Your task to perform on an android device: Check the new Jordans on Nike. Image 0: 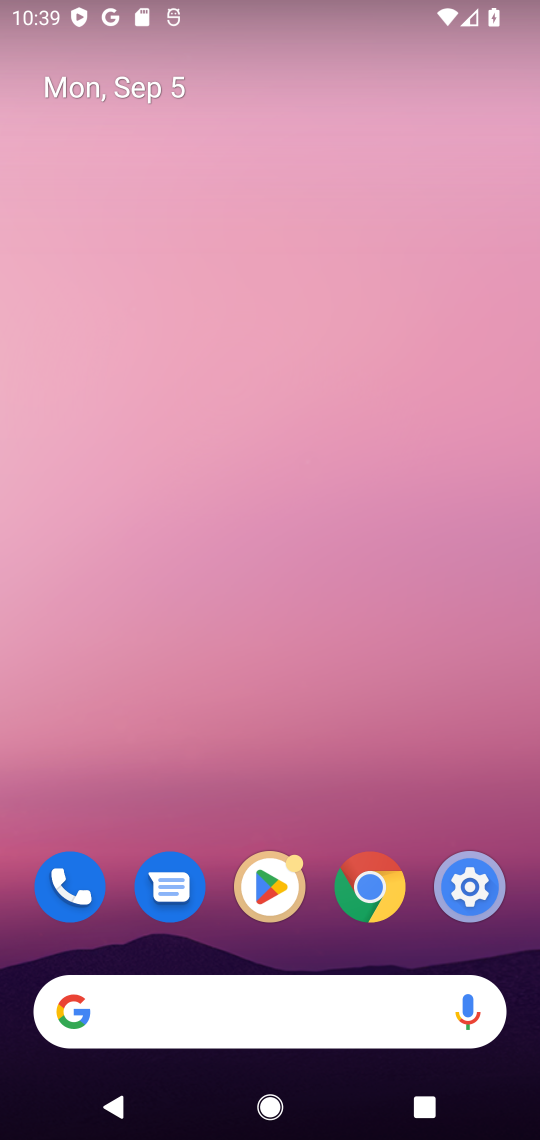
Step 0: click (367, 895)
Your task to perform on an android device: Check the new Jordans on Nike. Image 1: 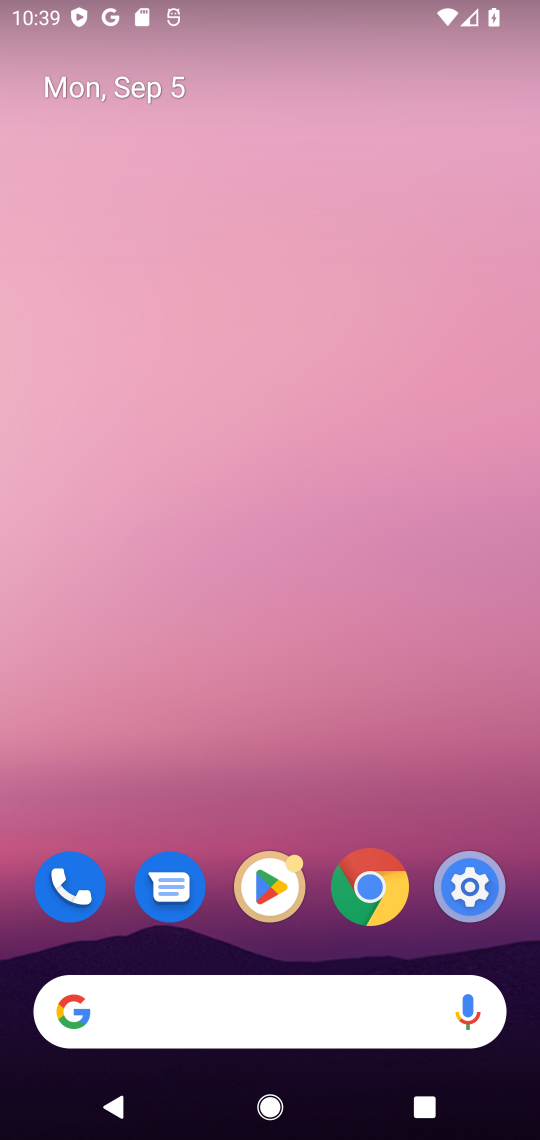
Step 1: click (352, 909)
Your task to perform on an android device: Check the new Jordans on Nike. Image 2: 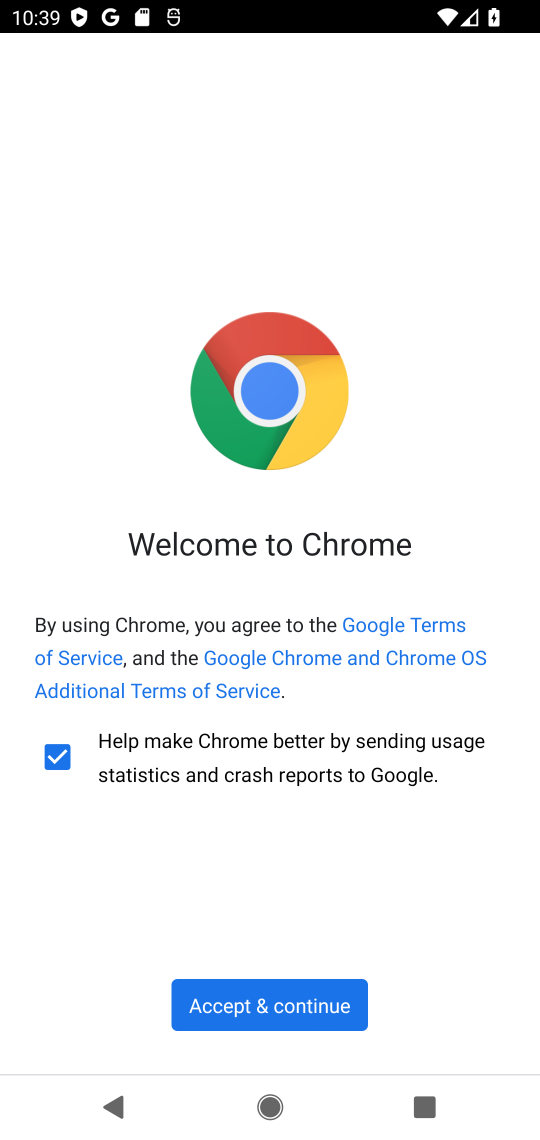
Step 2: click (324, 1012)
Your task to perform on an android device: Check the new Jordans on Nike. Image 3: 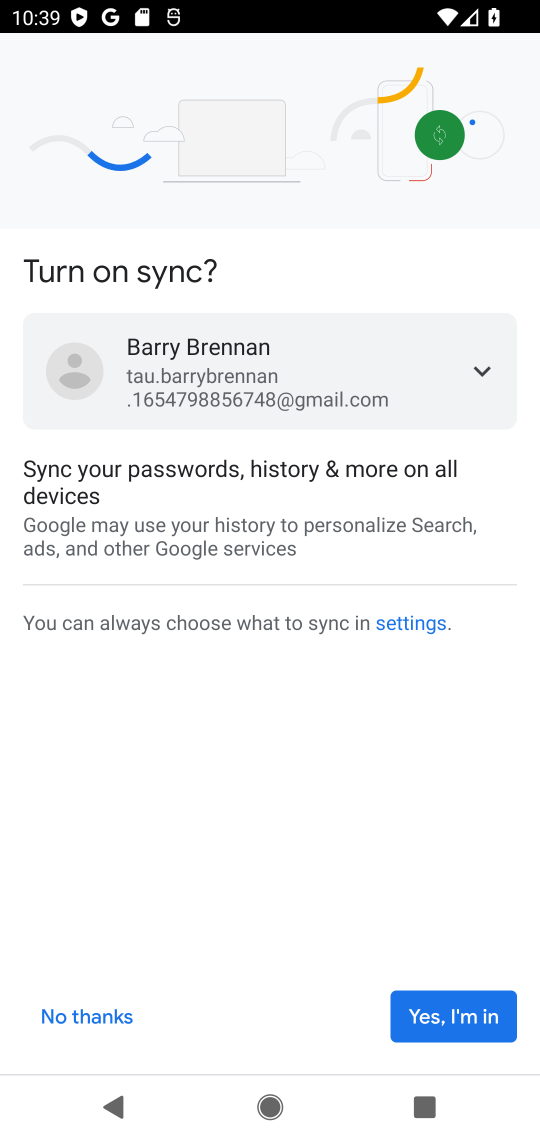
Step 3: click (435, 1008)
Your task to perform on an android device: Check the new Jordans on Nike. Image 4: 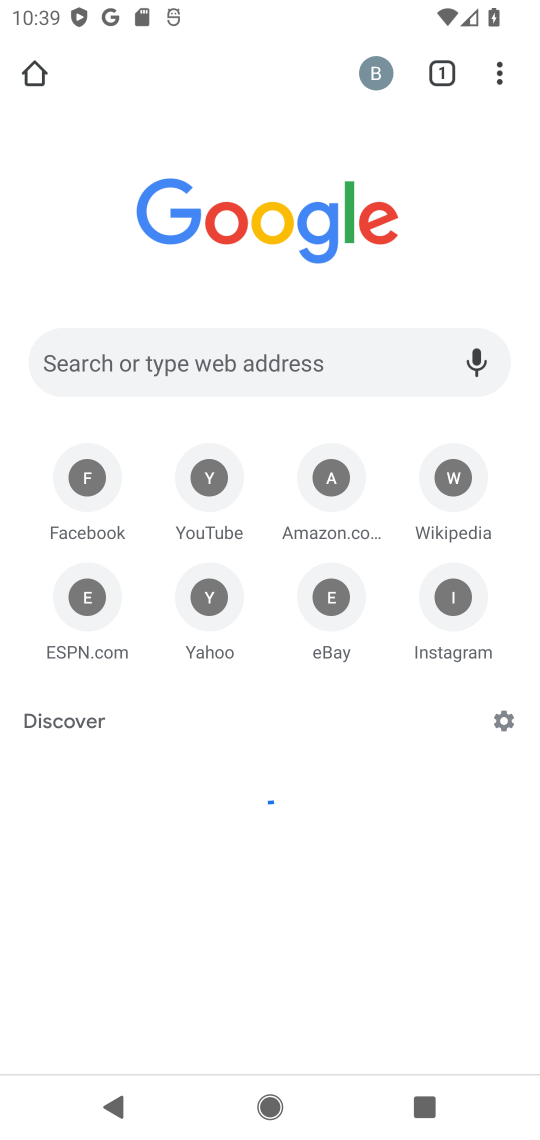
Step 4: click (213, 311)
Your task to perform on an android device: Check the new Jordans on Nike. Image 5: 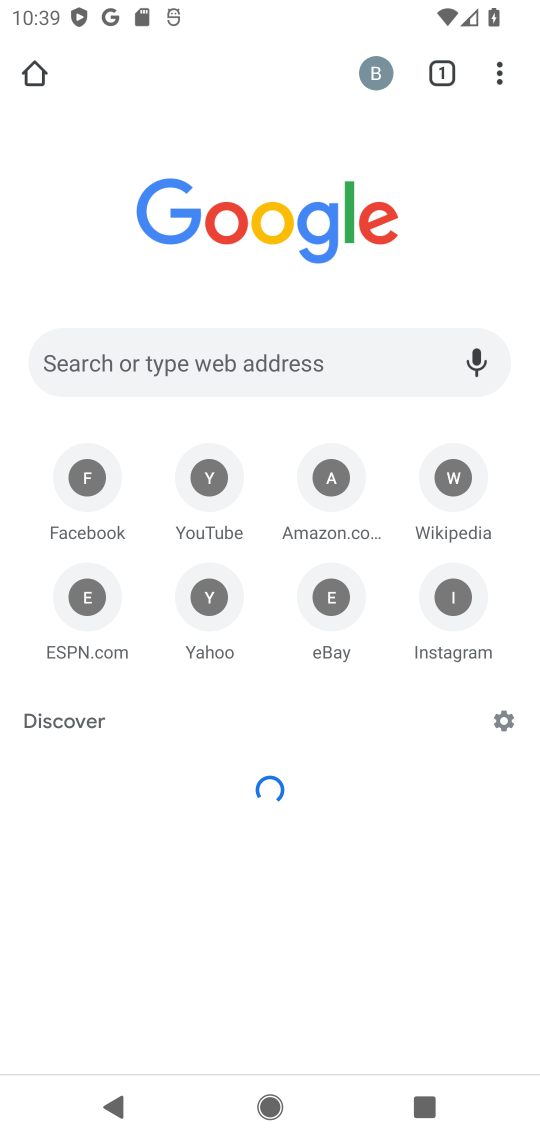
Step 5: click (213, 332)
Your task to perform on an android device: Check the new Jordans on Nike. Image 6: 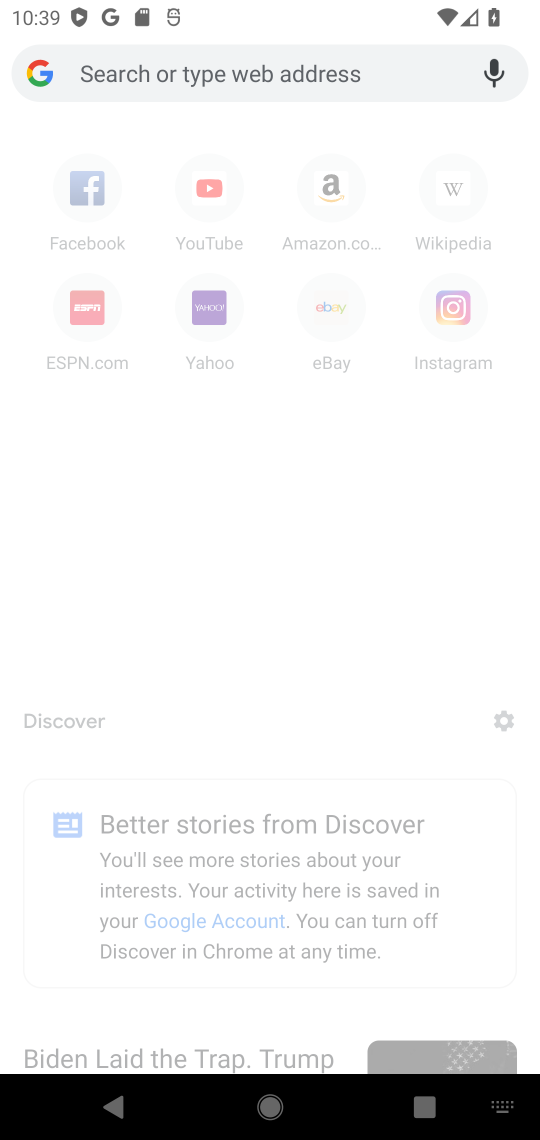
Step 6: type "nike"
Your task to perform on an android device: Check the new Jordans on Nike. Image 7: 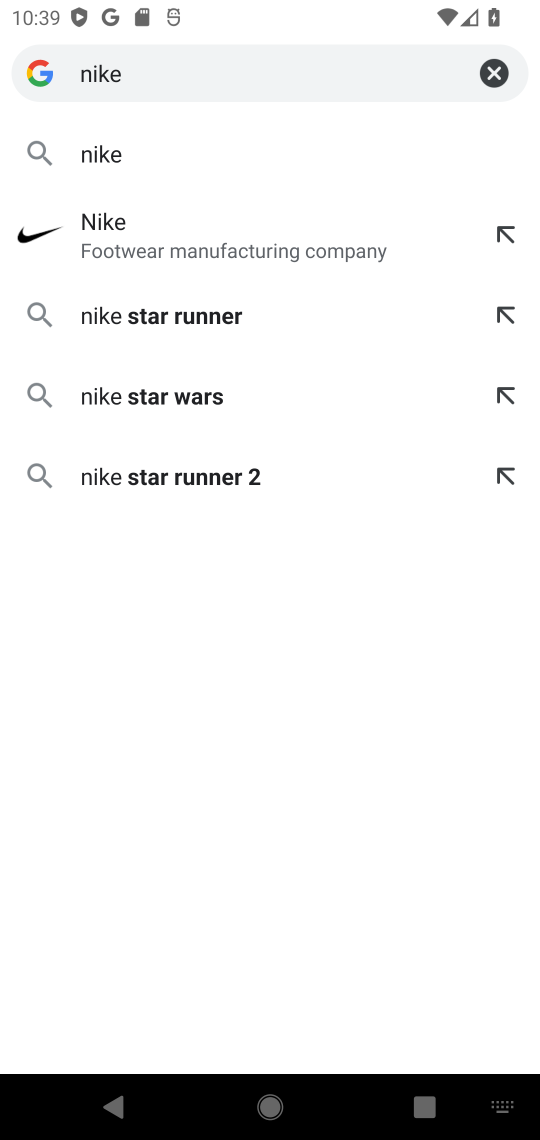
Step 7: press enter
Your task to perform on an android device: Check the new Jordans on Nike. Image 8: 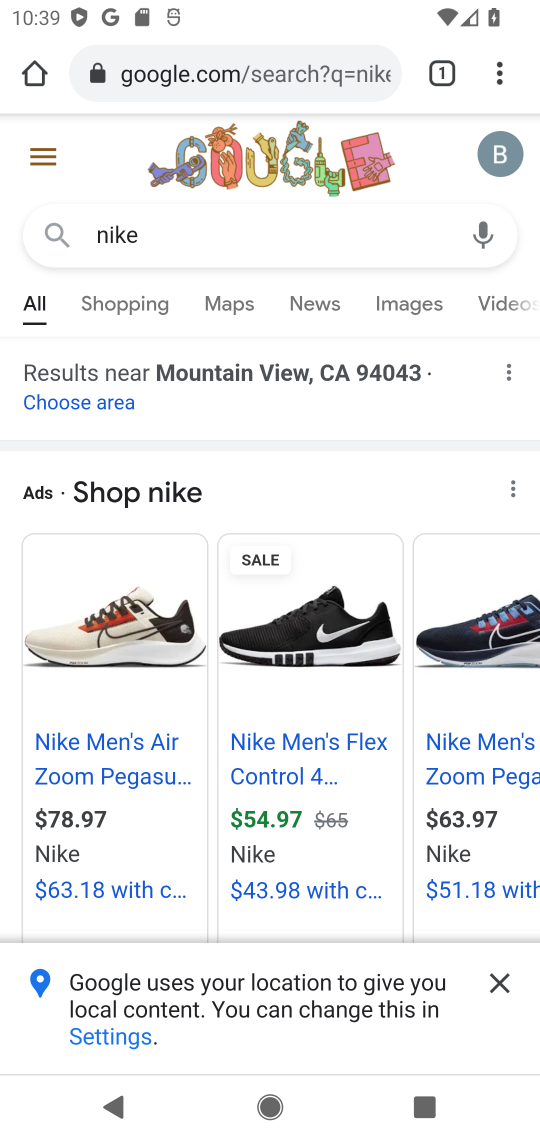
Step 8: drag from (145, 712) to (128, 353)
Your task to perform on an android device: Check the new Jordans on Nike. Image 9: 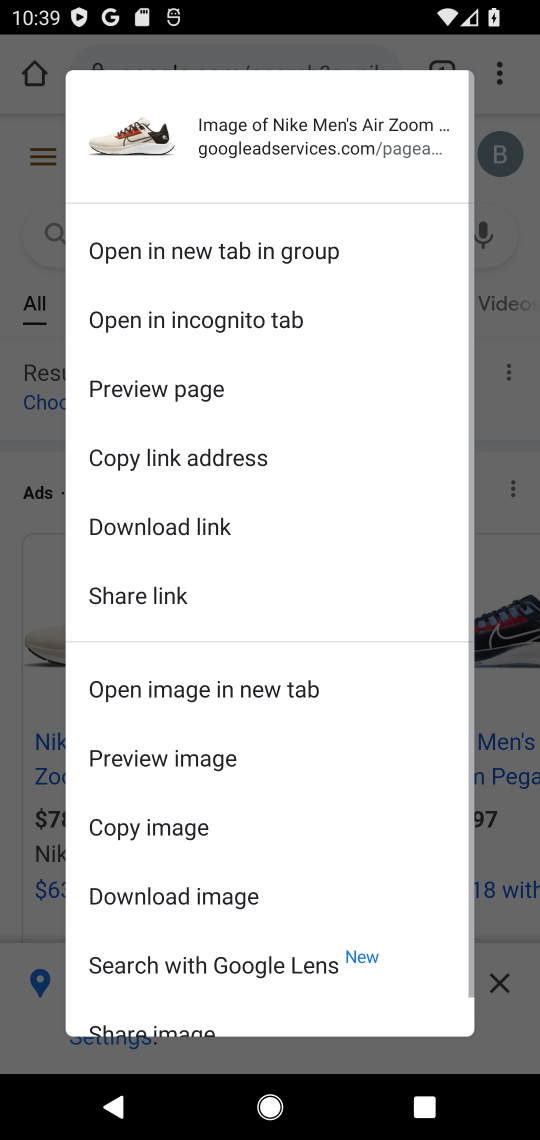
Step 9: click (511, 844)
Your task to perform on an android device: Check the new Jordans on Nike. Image 10: 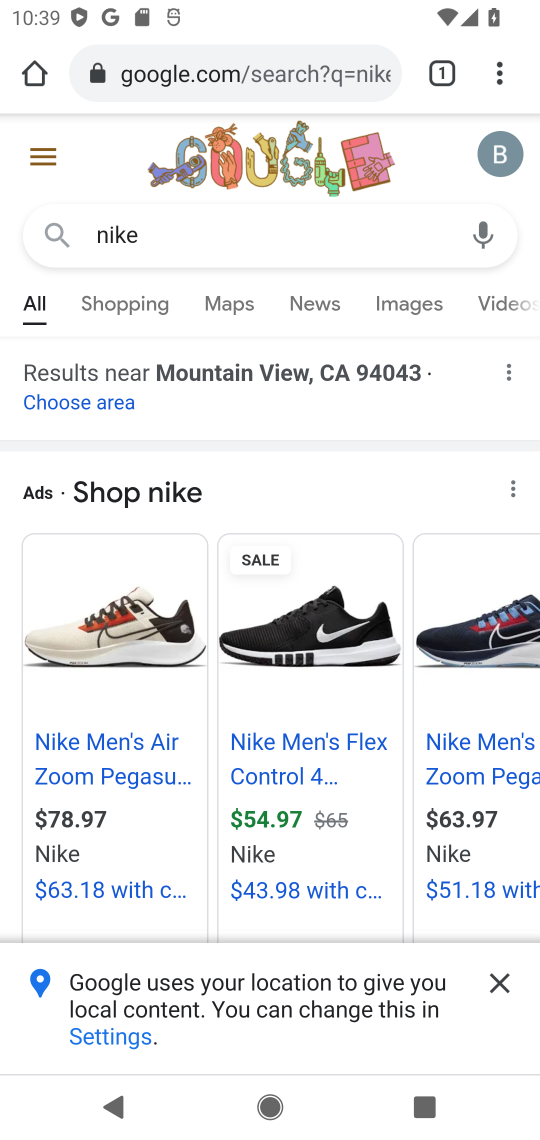
Step 10: click (503, 987)
Your task to perform on an android device: Check the new Jordans on Nike. Image 11: 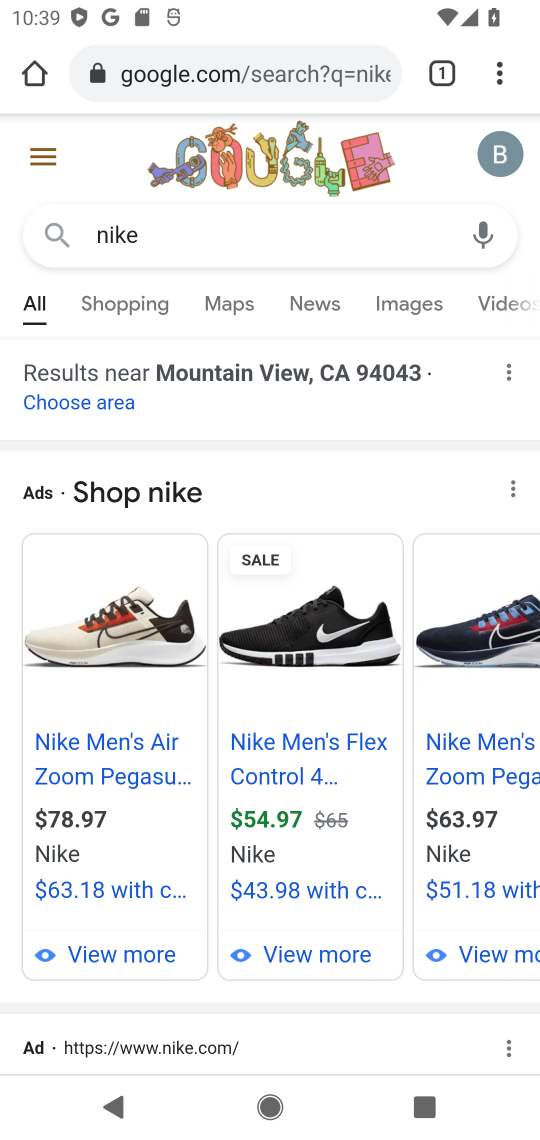
Step 11: drag from (321, 974) to (356, 493)
Your task to perform on an android device: Check the new Jordans on Nike. Image 12: 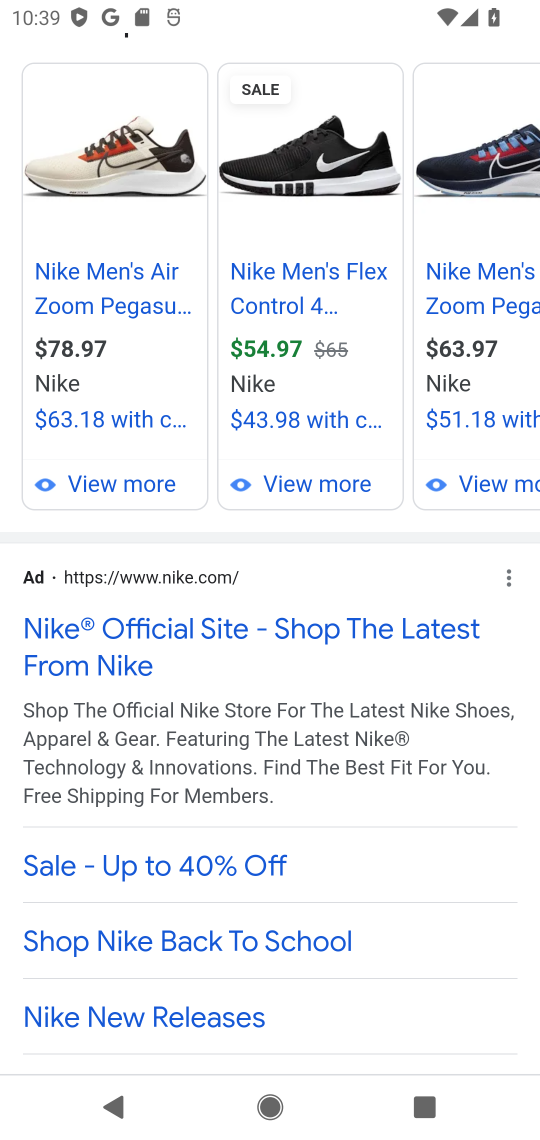
Step 12: click (60, 642)
Your task to perform on an android device: Check the new Jordans on Nike. Image 13: 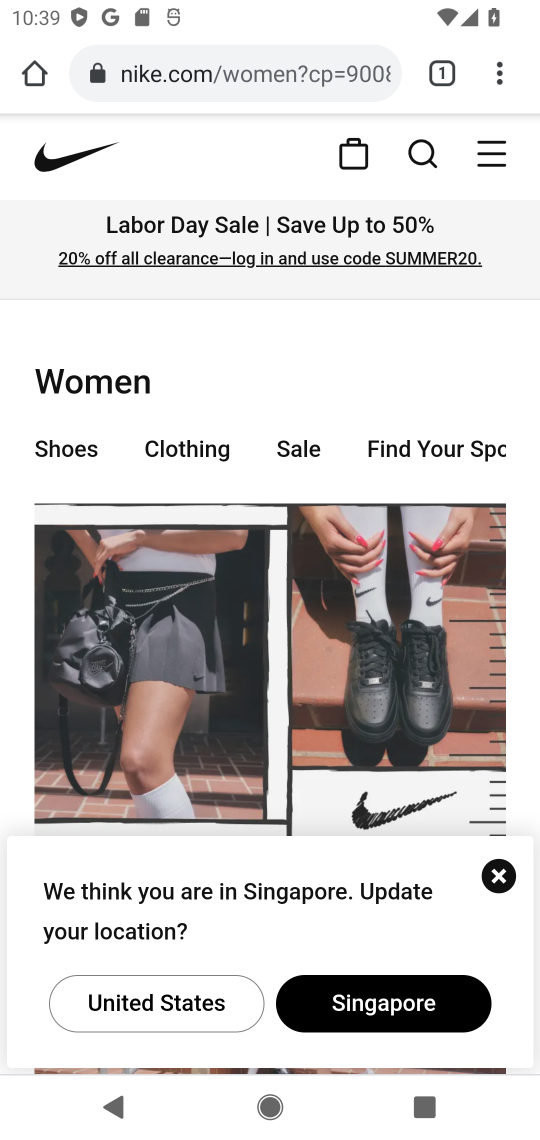
Step 13: click (409, 160)
Your task to perform on an android device: Check the new Jordans on Nike. Image 14: 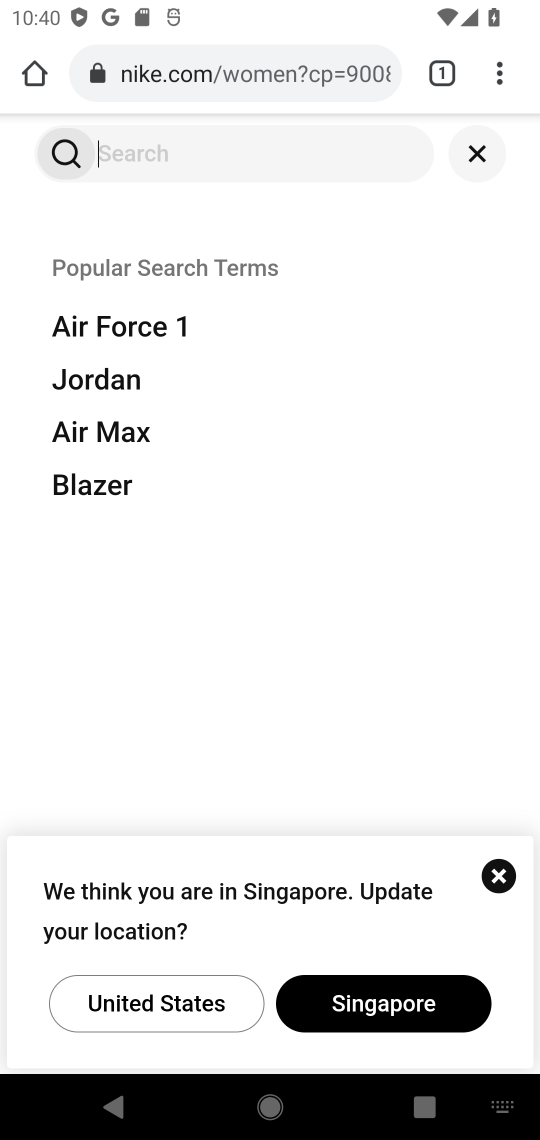
Step 14: click (185, 155)
Your task to perform on an android device: Check the new Jordans on Nike. Image 15: 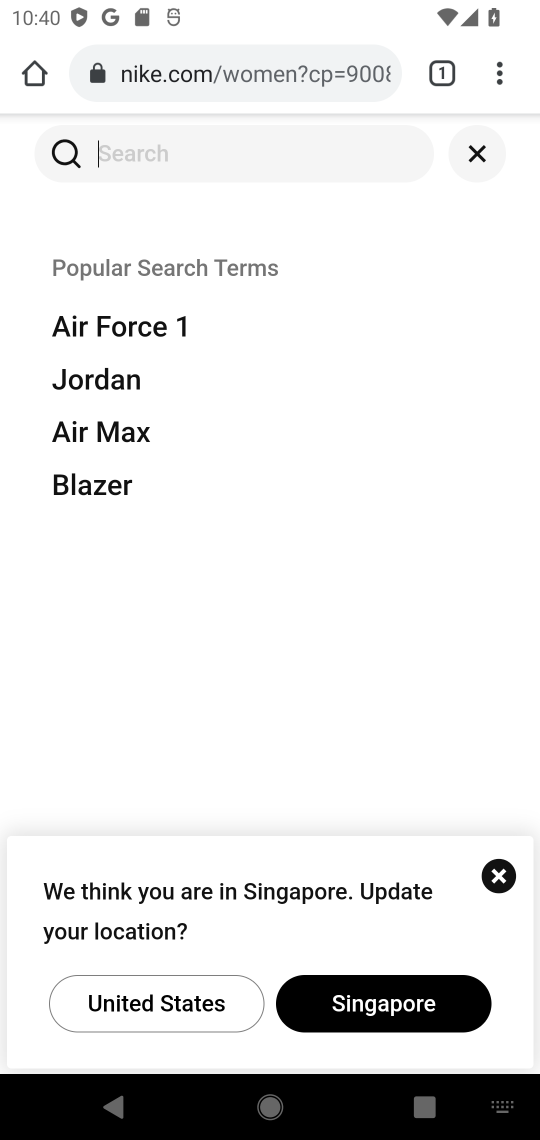
Step 15: type "new Jordans"
Your task to perform on an android device: Check the new Jordans on Nike. Image 16: 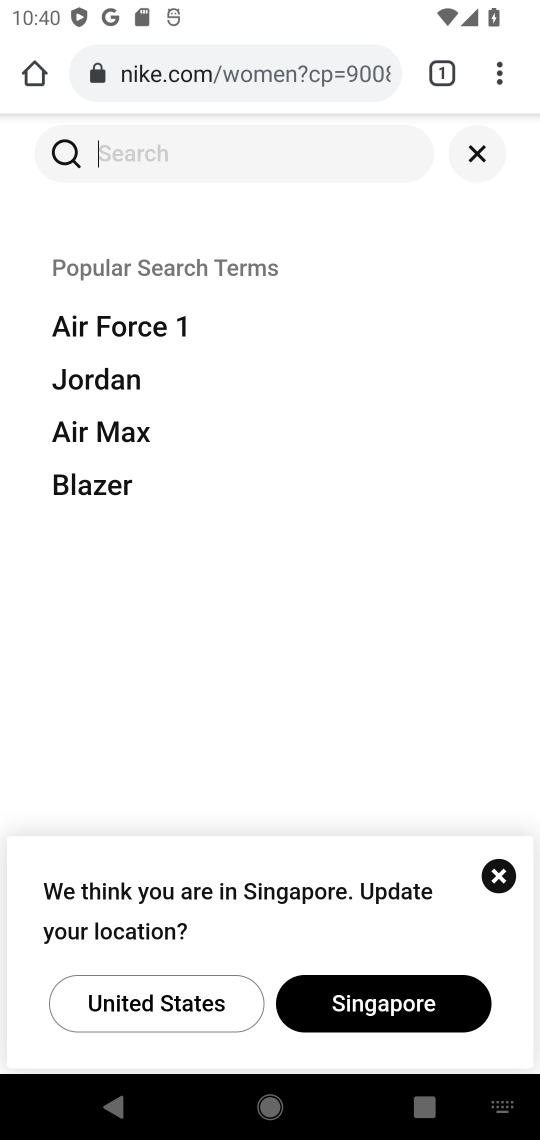
Step 16: type ""
Your task to perform on an android device: Check the new Jordans on Nike. Image 17: 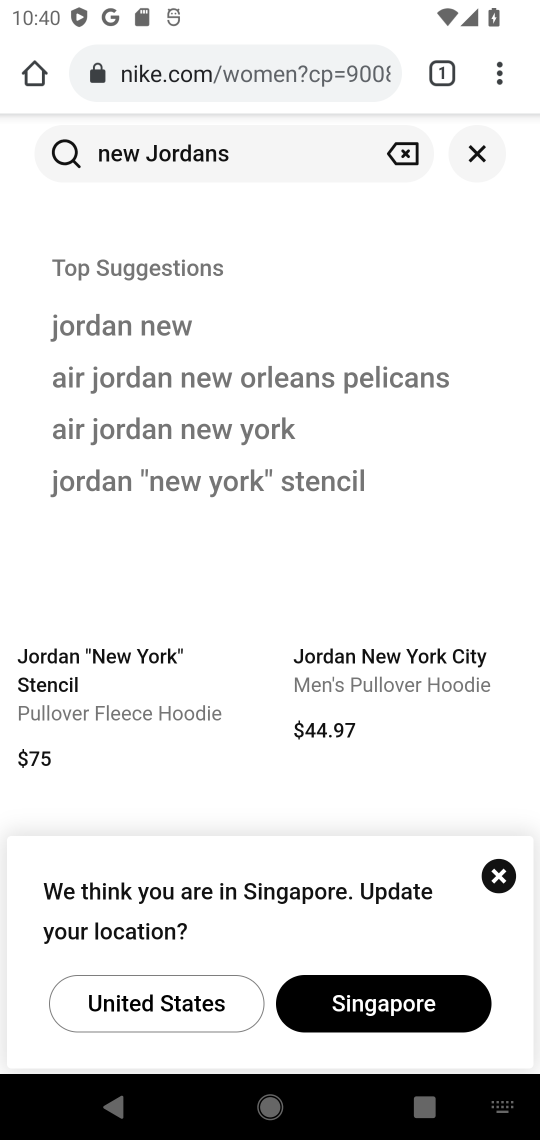
Step 17: press enter
Your task to perform on an android device: Check the new Jordans on Nike. Image 18: 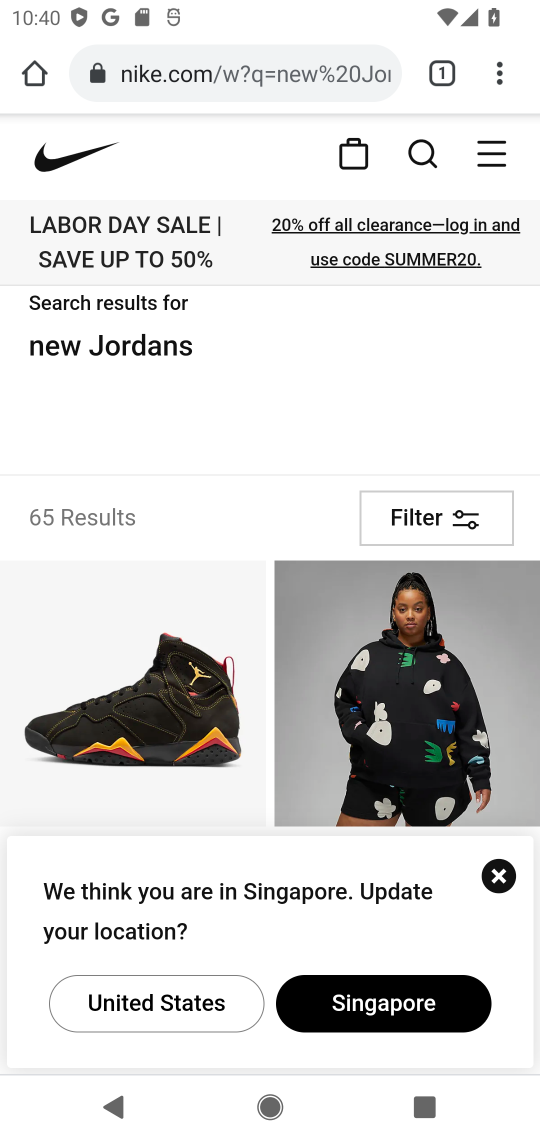
Step 18: click (502, 877)
Your task to perform on an android device: Check the new Jordans on Nike. Image 19: 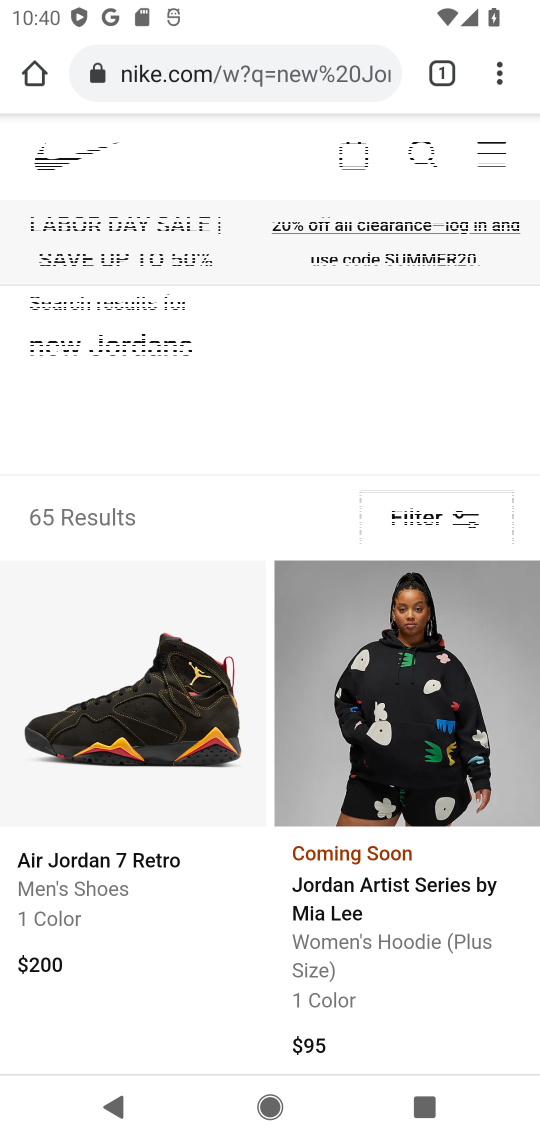
Step 19: drag from (346, 924) to (294, 404)
Your task to perform on an android device: Check the new Jordans on Nike. Image 20: 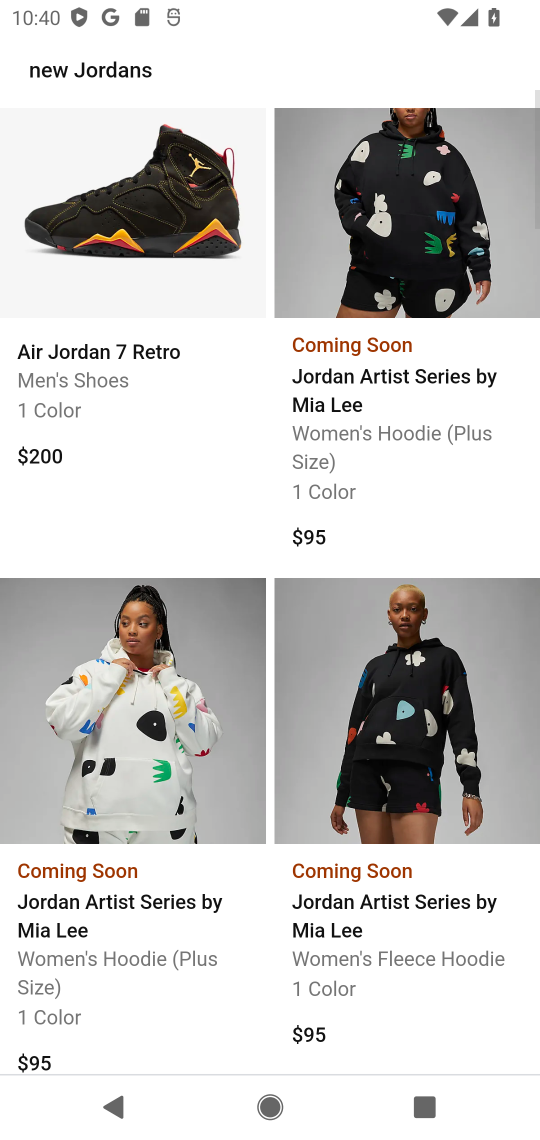
Step 20: drag from (386, 769) to (343, 393)
Your task to perform on an android device: Check the new Jordans on Nike. Image 21: 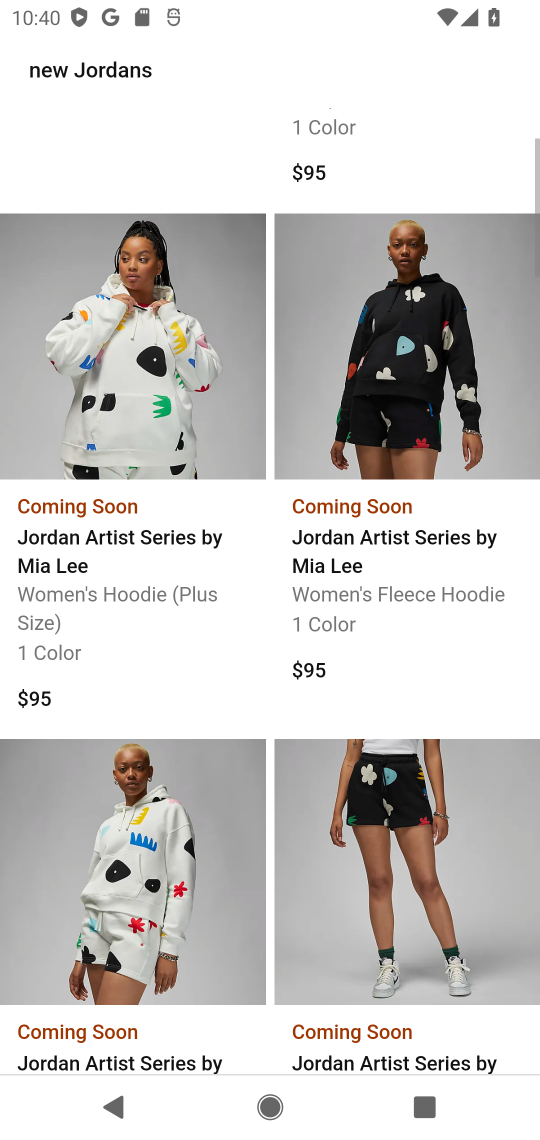
Step 21: drag from (375, 983) to (348, 420)
Your task to perform on an android device: Check the new Jordans on Nike. Image 22: 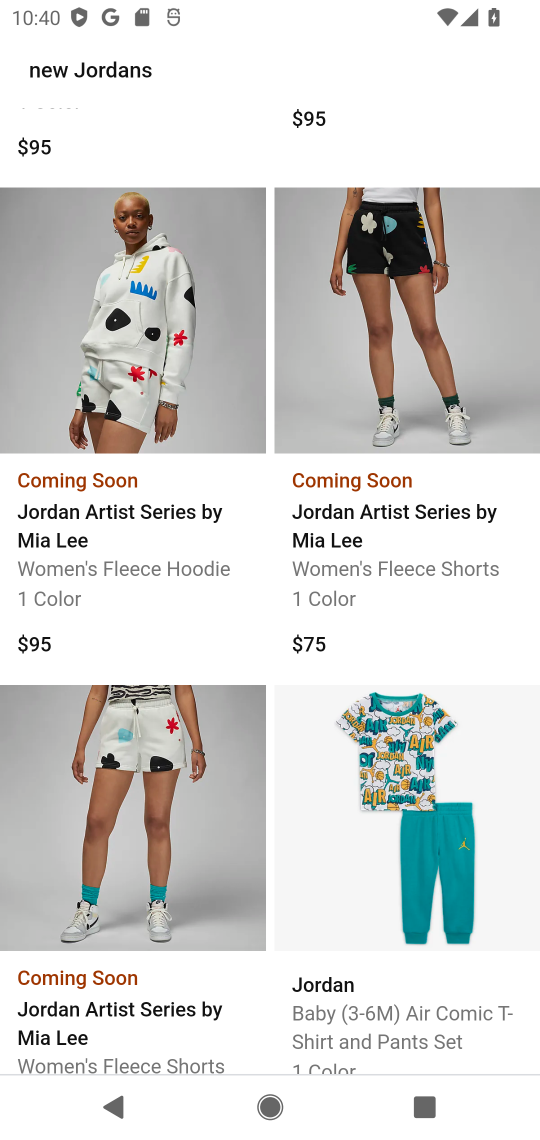
Step 22: drag from (368, 859) to (385, 342)
Your task to perform on an android device: Check the new Jordans on Nike. Image 23: 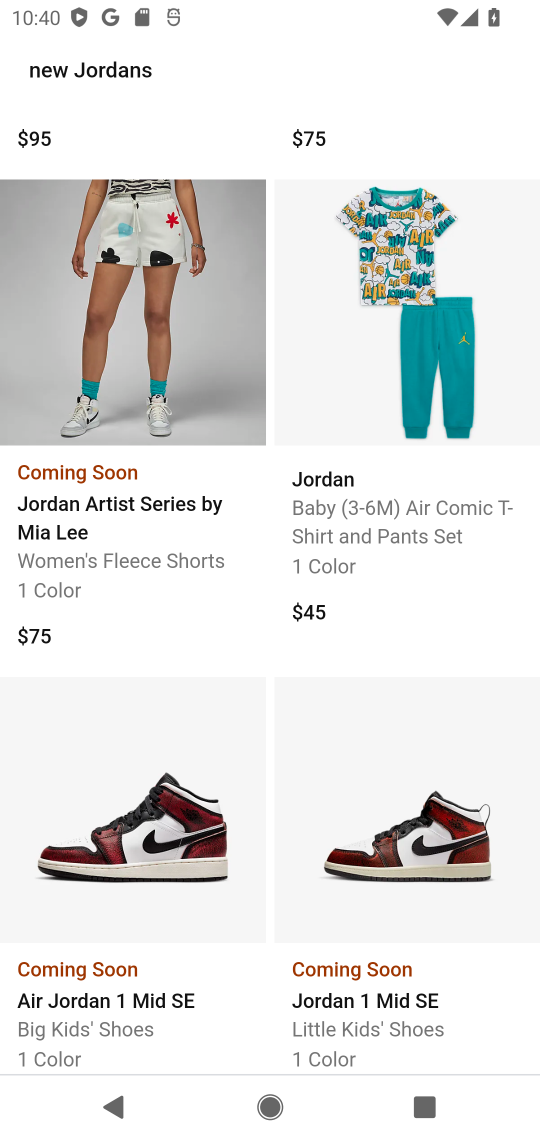
Step 23: drag from (289, 907) to (333, 429)
Your task to perform on an android device: Check the new Jordans on Nike. Image 24: 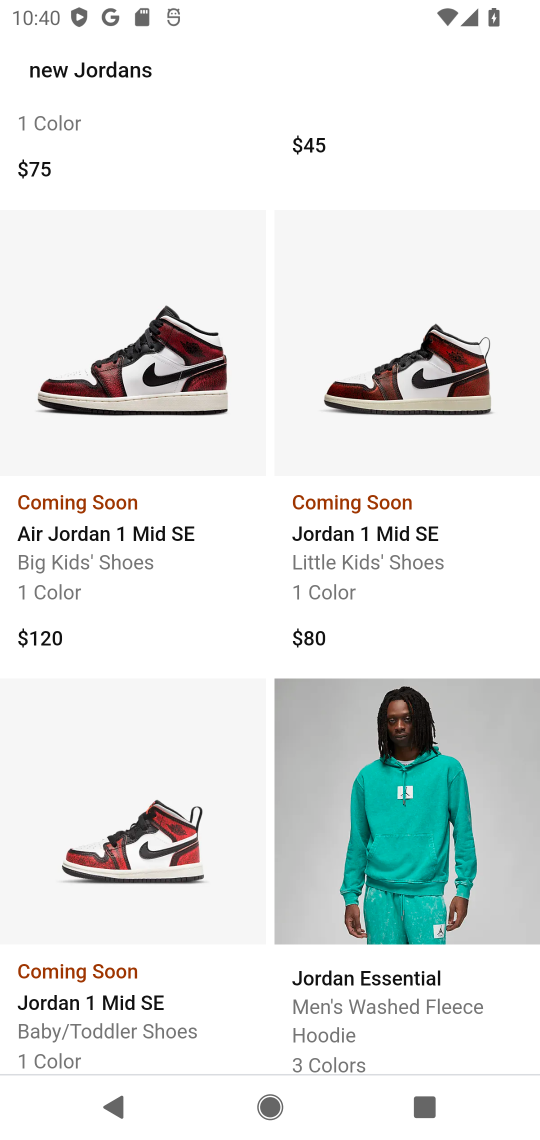
Step 24: drag from (292, 820) to (291, 416)
Your task to perform on an android device: Check the new Jordans on Nike. Image 25: 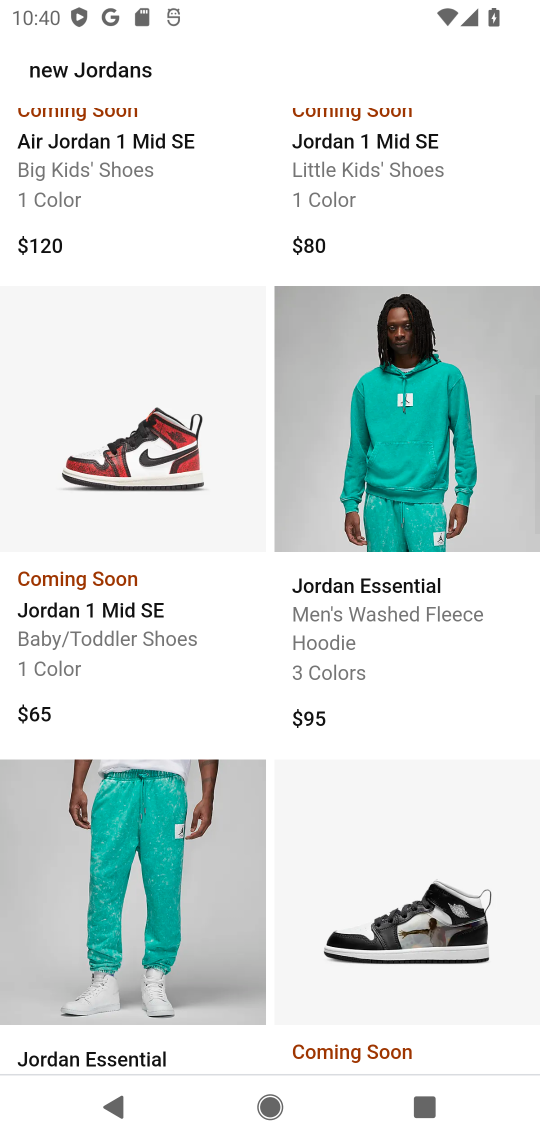
Step 25: drag from (238, 953) to (292, 317)
Your task to perform on an android device: Check the new Jordans on Nike. Image 26: 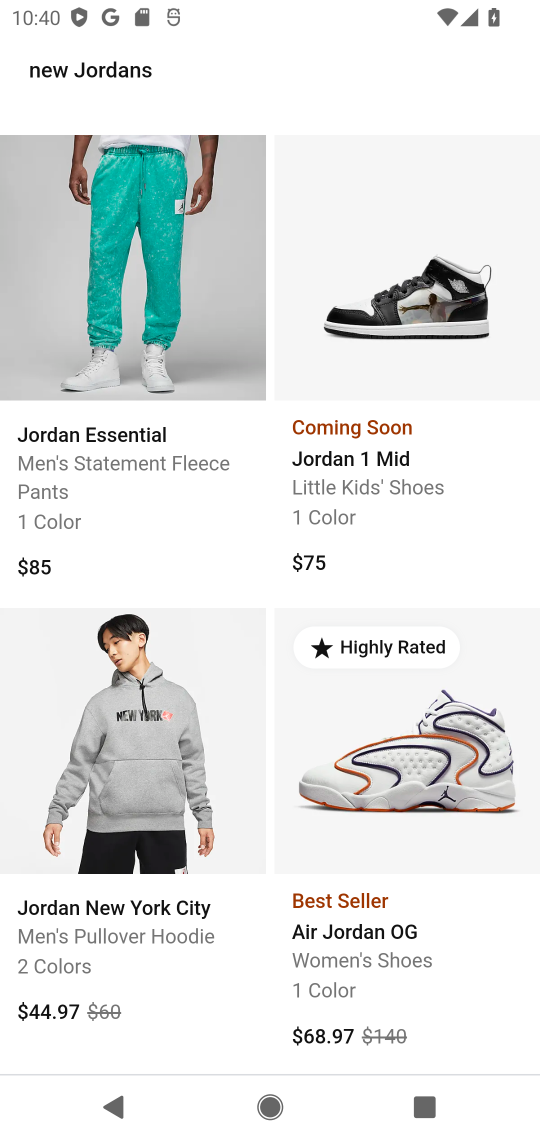
Step 26: drag from (313, 974) to (339, 393)
Your task to perform on an android device: Check the new Jordans on Nike. Image 27: 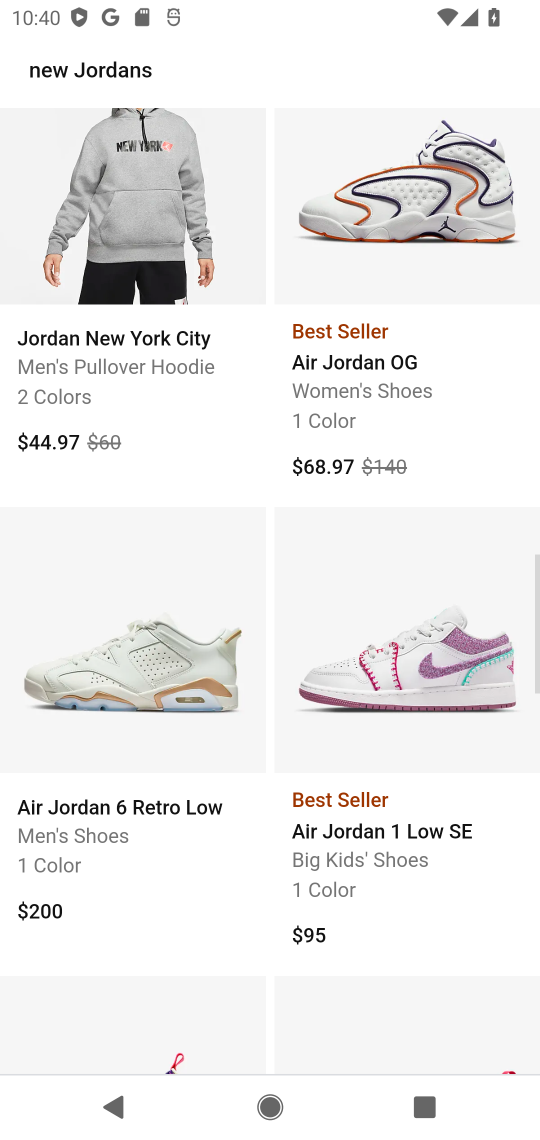
Step 27: drag from (284, 851) to (287, 349)
Your task to perform on an android device: Check the new Jordans on Nike. Image 28: 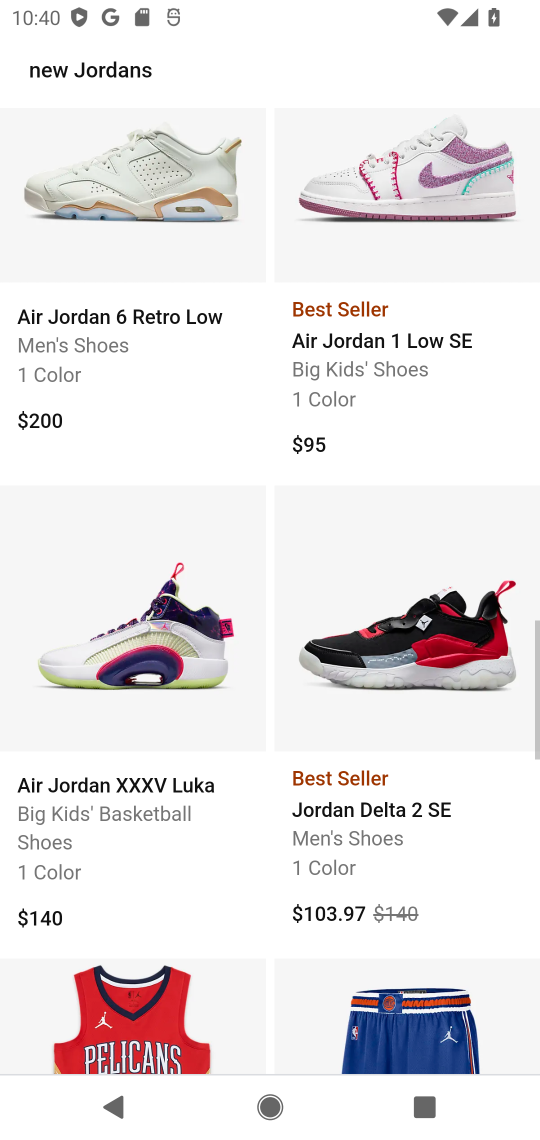
Step 28: drag from (282, 906) to (318, 365)
Your task to perform on an android device: Check the new Jordans on Nike. Image 29: 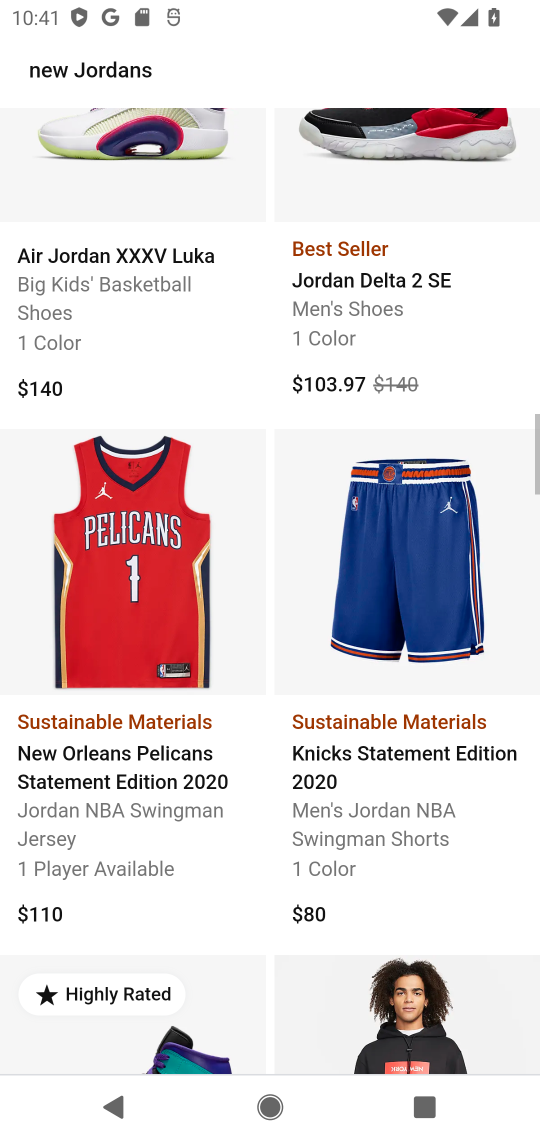
Step 29: drag from (297, 916) to (324, 450)
Your task to perform on an android device: Check the new Jordans on Nike. Image 30: 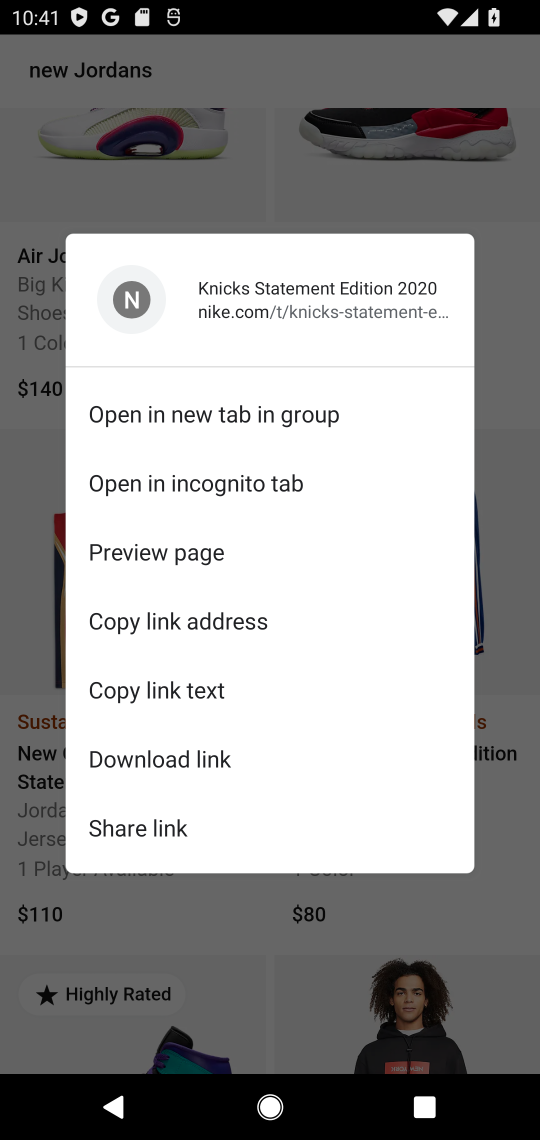
Step 30: click (518, 695)
Your task to perform on an android device: Check the new Jordans on Nike. Image 31: 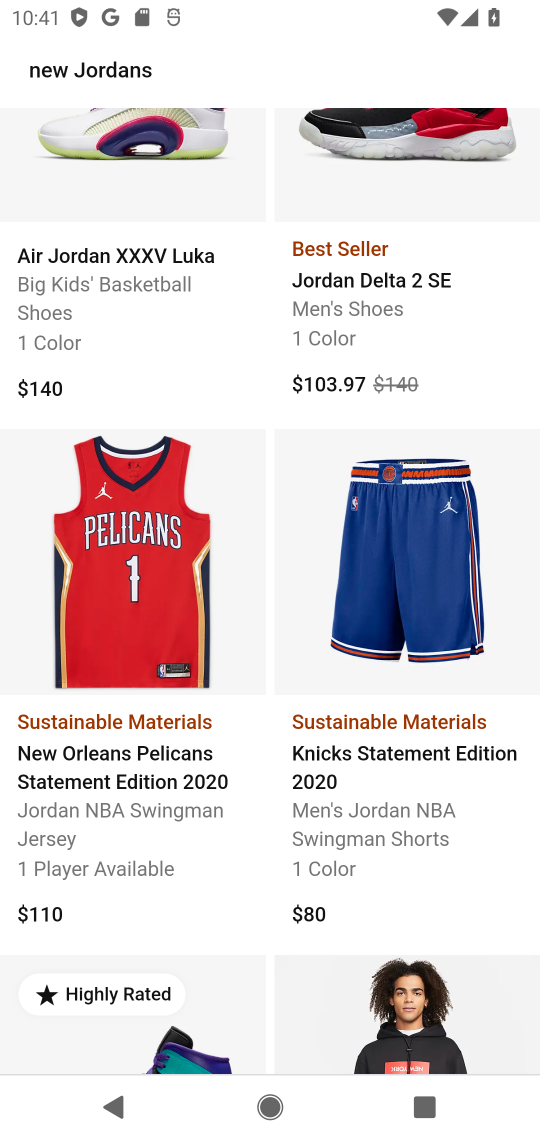
Step 31: task complete